Your task to perform on an android device: Search for "corsair k70" on ebay, select the first entry, add it to the cart, then select checkout. Image 0: 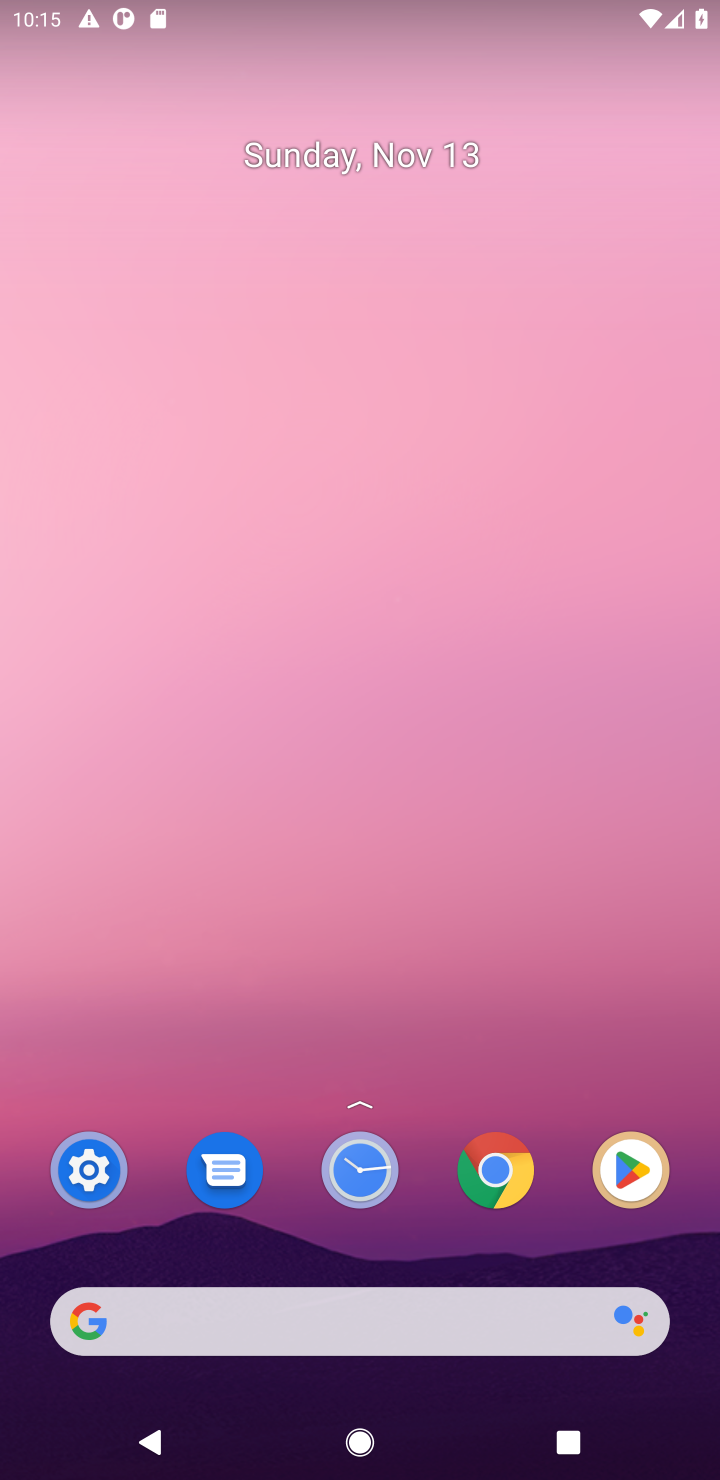
Step 0: click (419, 1325)
Your task to perform on an android device: Search for "corsair k70" on ebay, select the first entry, add it to the cart, then select checkout. Image 1: 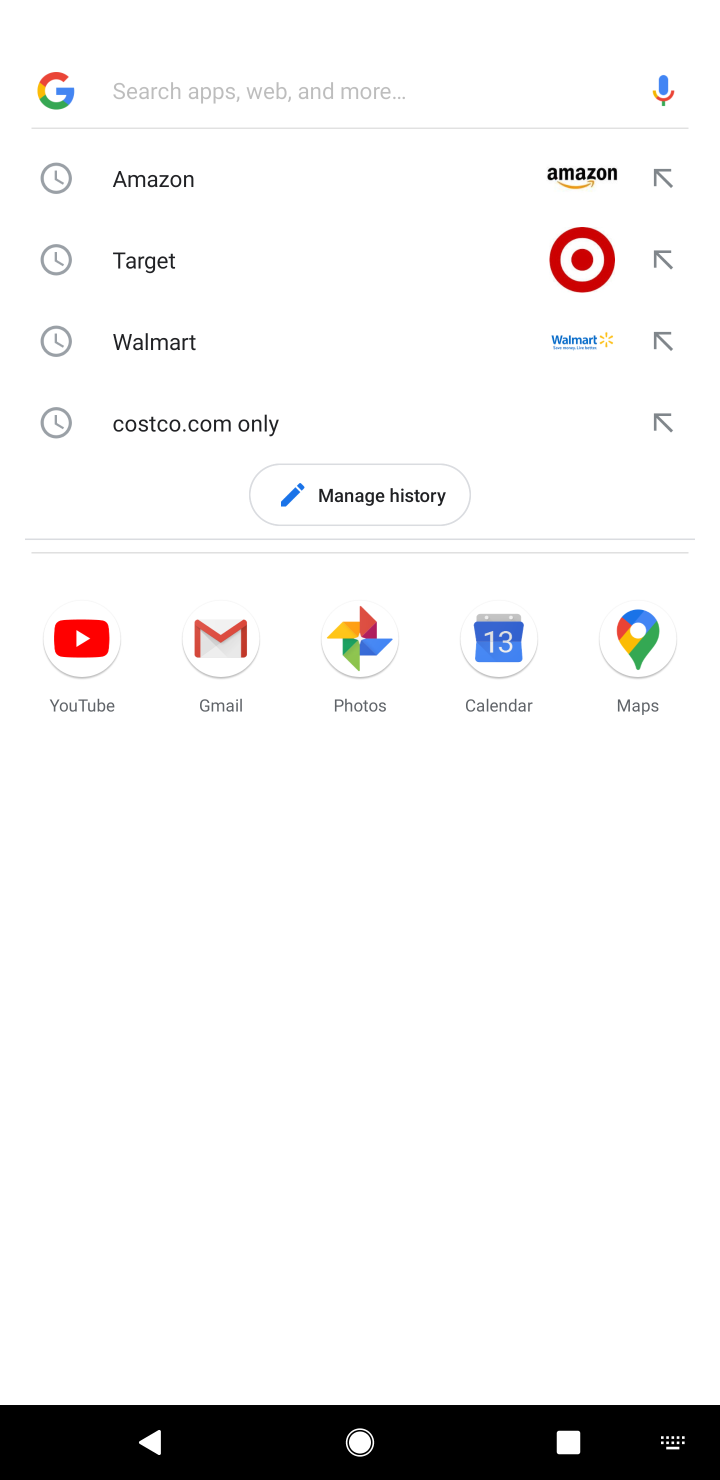
Step 1: type "ebay.com"
Your task to perform on an android device: Search for "corsair k70" on ebay, select the first entry, add it to the cart, then select checkout. Image 2: 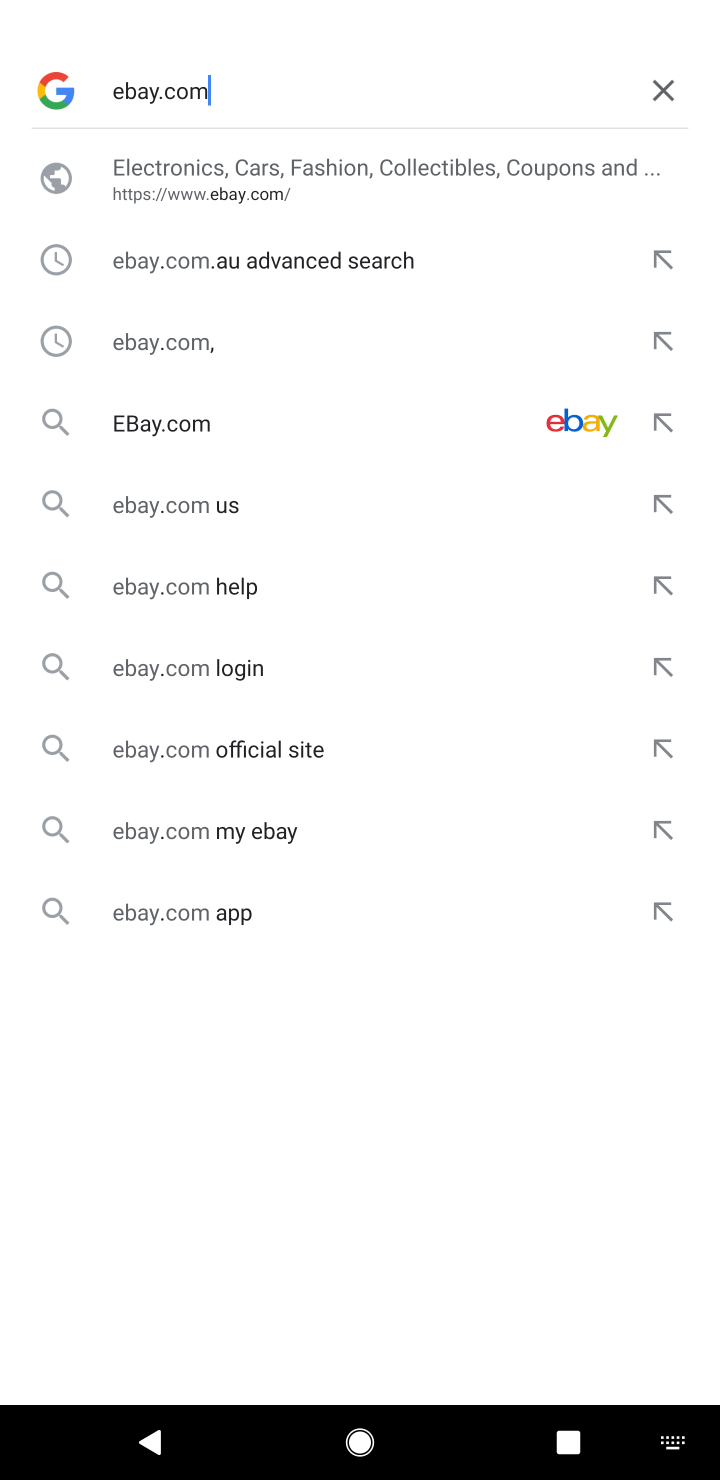
Step 2: click (196, 163)
Your task to perform on an android device: Search for "corsair k70" on ebay, select the first entry, add it to the cart, then select checkout. Image 3: 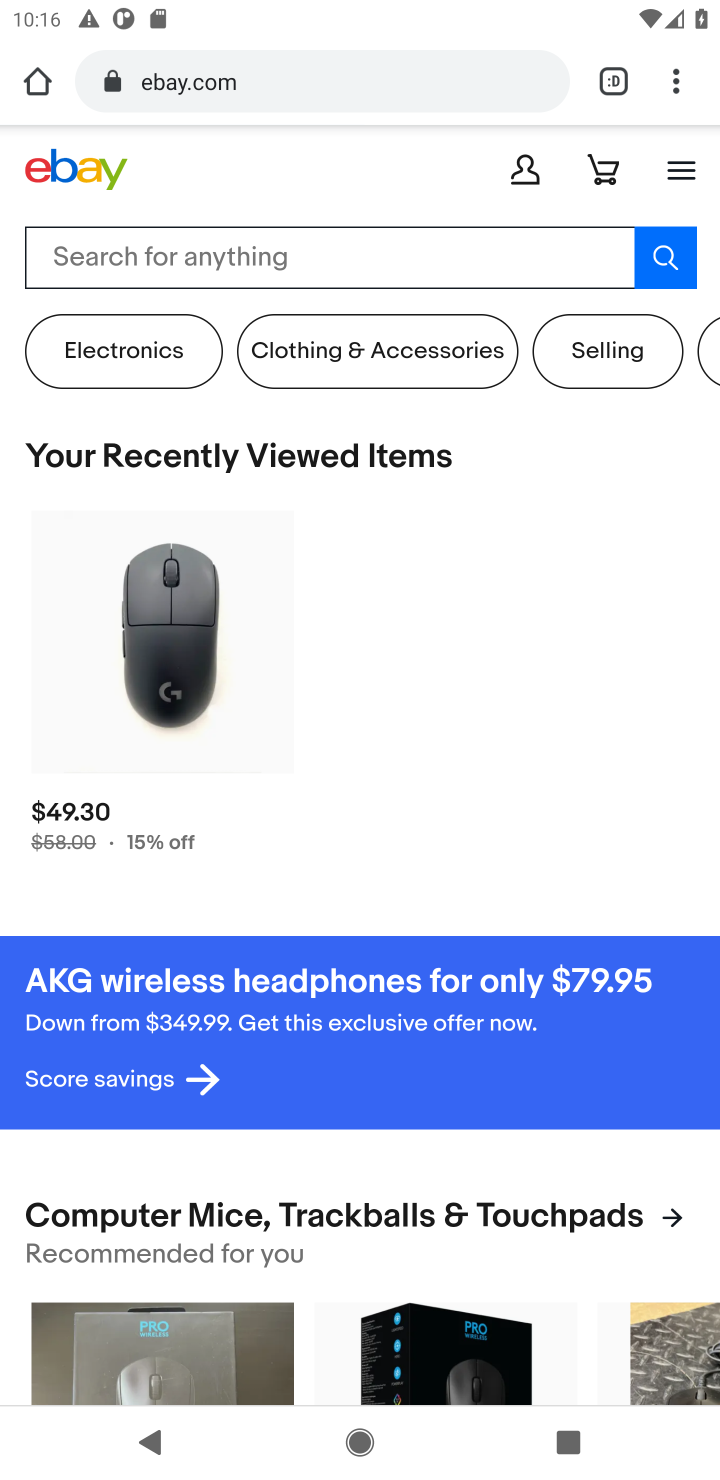
Step 3: task complete